Your task to perform on an android device: change the upload size in google photos Image 0: 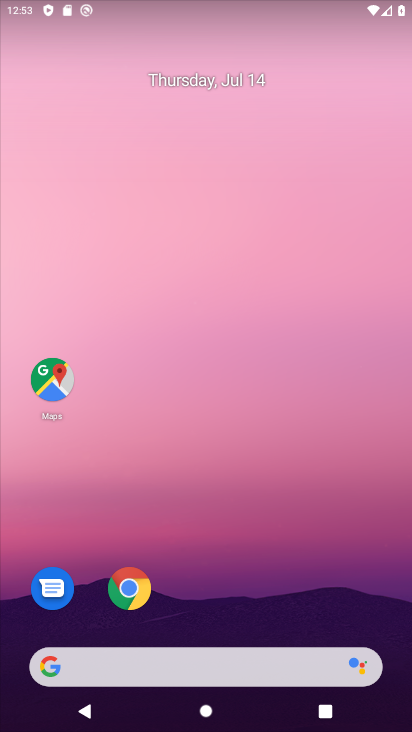
Step 0: drag from (256, 709) to (352, 358)
Your task to perform on an android device: change the upload size in google photos Image 1: 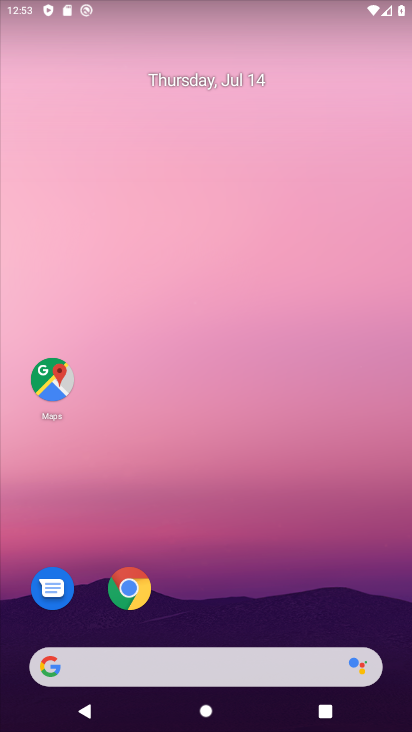
Step 1: drag from (280, 710) to (300, 92)
Your task to perform on an android device: change the upload size in google photos Image 2: 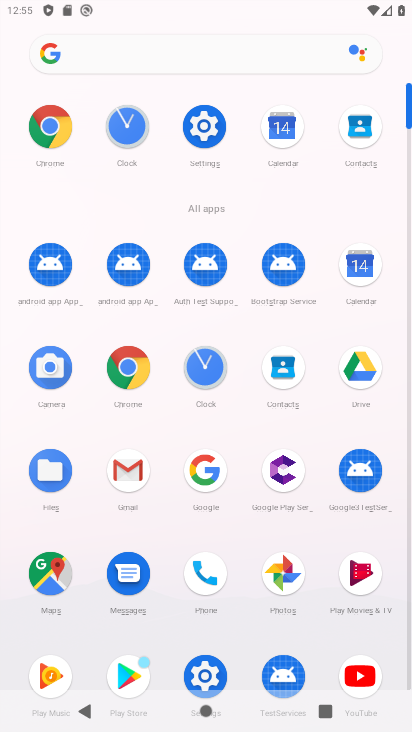
Step 2: click (273, 578)
Your task to perform on an android device: change the upload size in google photos Image 3: 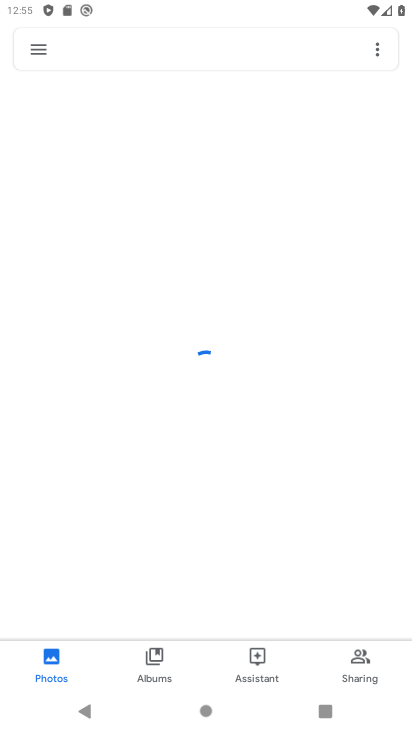
Step 3: click (41, 53)
Your task to perform on an android device: change the upload size in google photos Image 4: 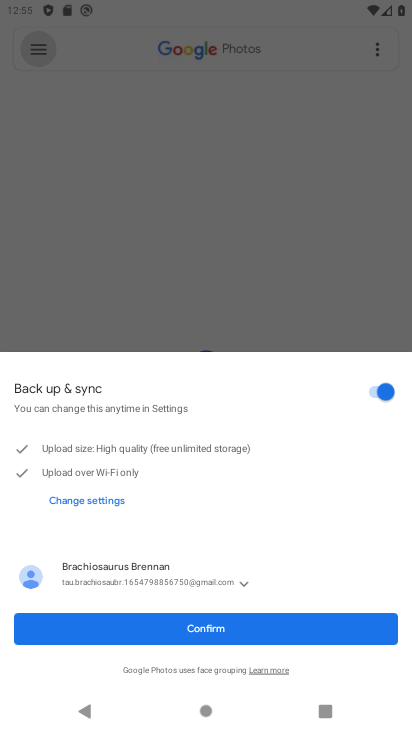
Step 4: click (201, 627)
Your task to perform on an android device: change the upload size in google photos Image 5: 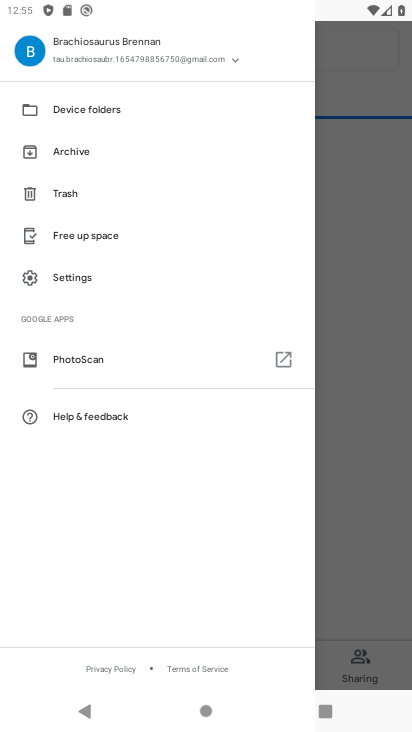
Step 5: click (75, 275)
Your task to perform on an android device: change the upload size in google photos Image 6: 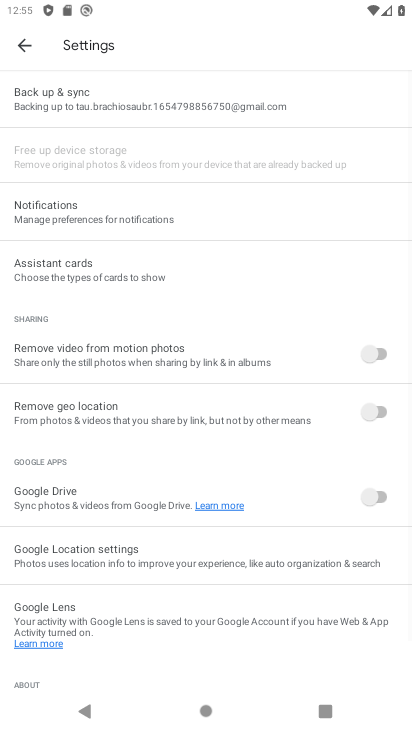
Step 6: click (155, 102)
Your task to perform on an android device: change the upload size in google photos Image 7: 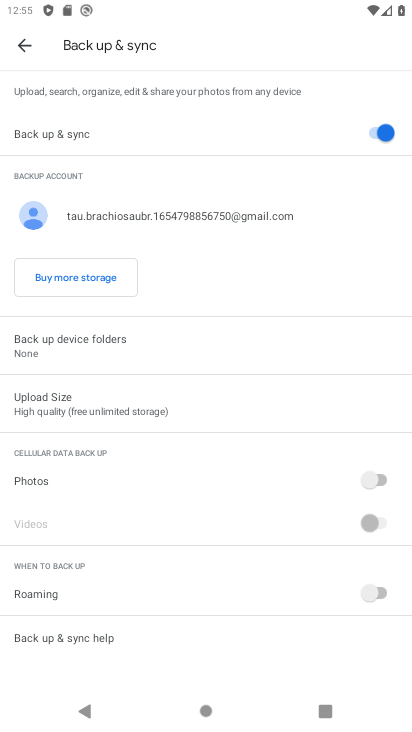
Step 7: click (108, 400)
Your task to perform on an android device: change the upload size in google photos Image 8: 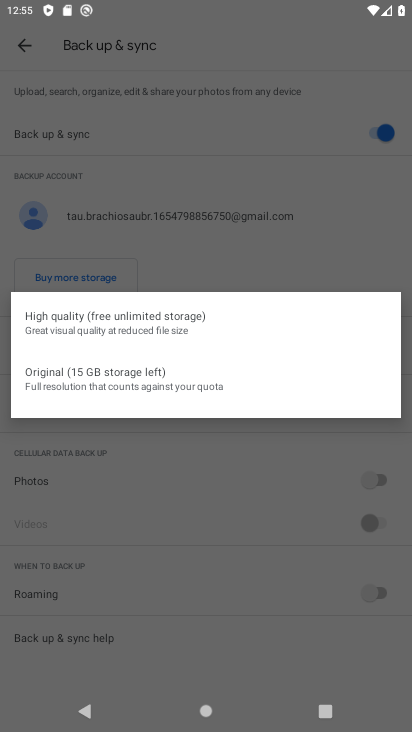
Step 8: click (122, 376)
Your task to perform on an android device: change the upload size in google photos Image 9: 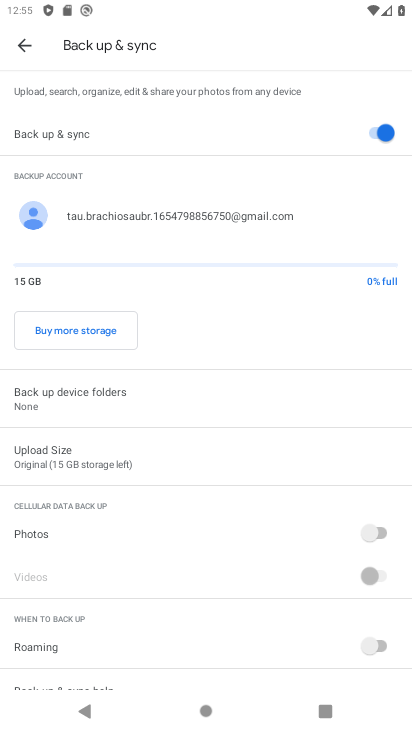
Step 9: task complete